Your task to perform on an android device: Open Chrome and go to settings Image 0: 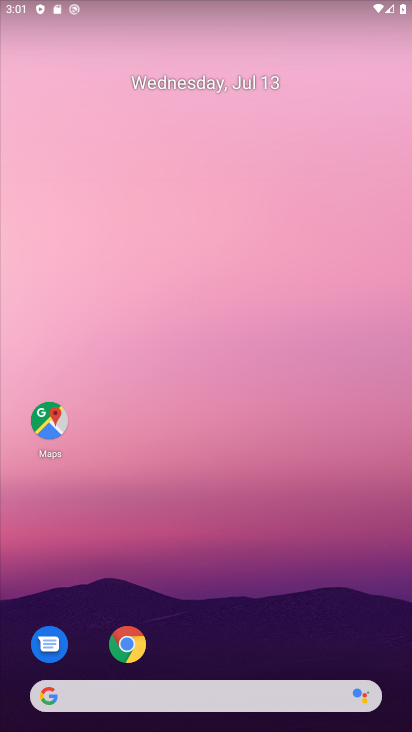
Step 0: click (127, 649)
Your task to perform on an android device: Open Chrome and go to settings Image 1: 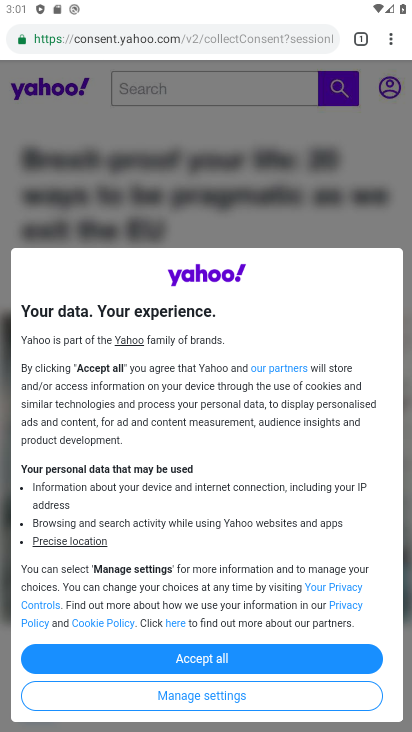
Step 1: click (391, 47)
Your task to perform on an android device: Open Chrome and go to settings Image 2: 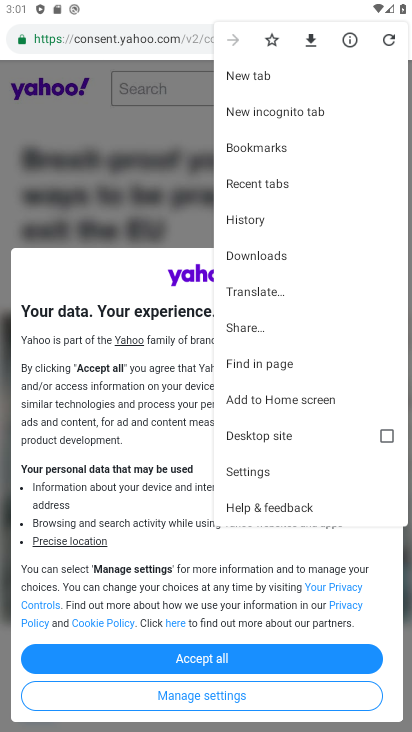
Step 2: click (295, 473)
Your task to perform on an android device: Open Chrome and go to settings Image 3: 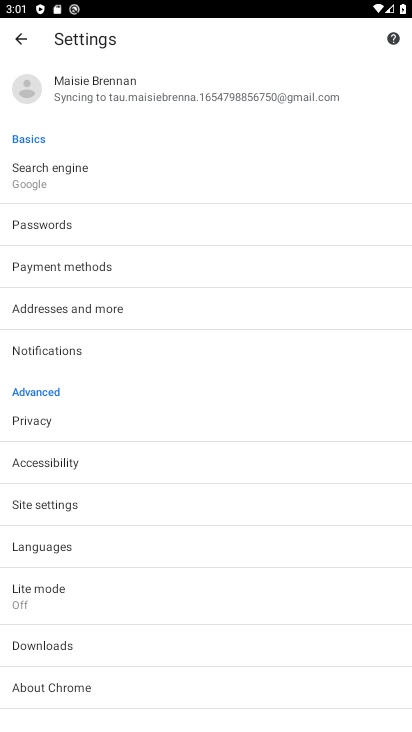
Step 3: task complete